Your task to perform on an android device: toggle notification dots Image 0: 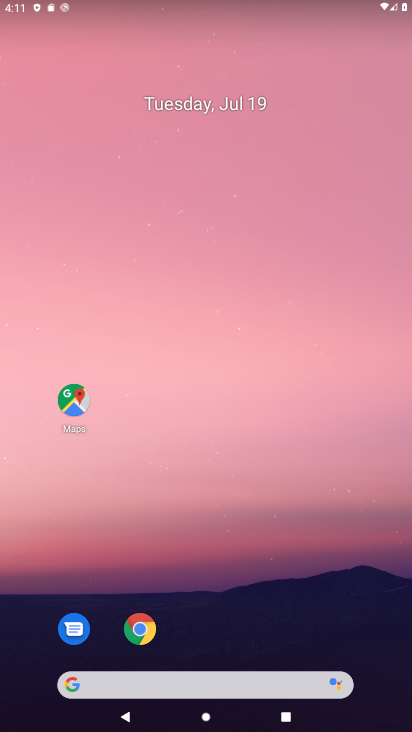
Step 0: drag from (199, 607) to (188, 286)
Your task to perform on an android device: toggle notification dots Image 1: 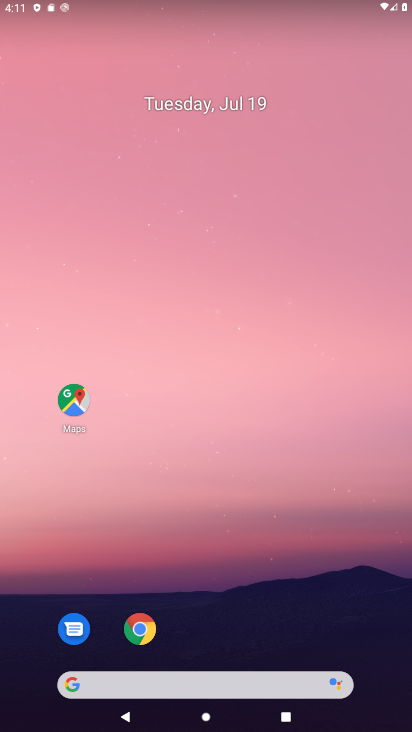
Step 1: drag from (289, 501) to (289, 122)
Your task to perform on an android device: toggle notification dots Image 2: 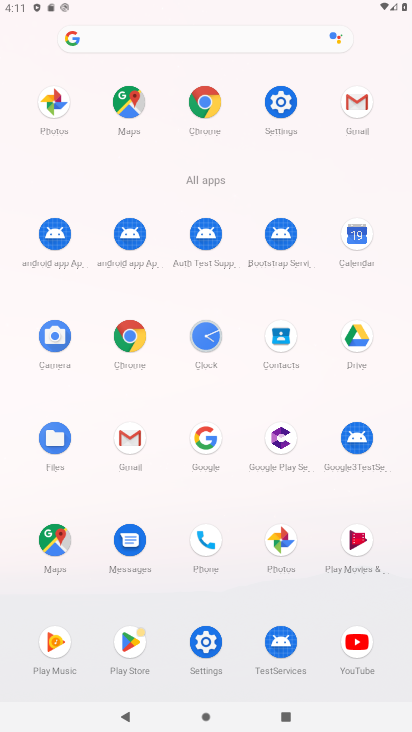
Step 2: click (287, 108)
Your task to perform on an android device: toggle notification dots Image 3: 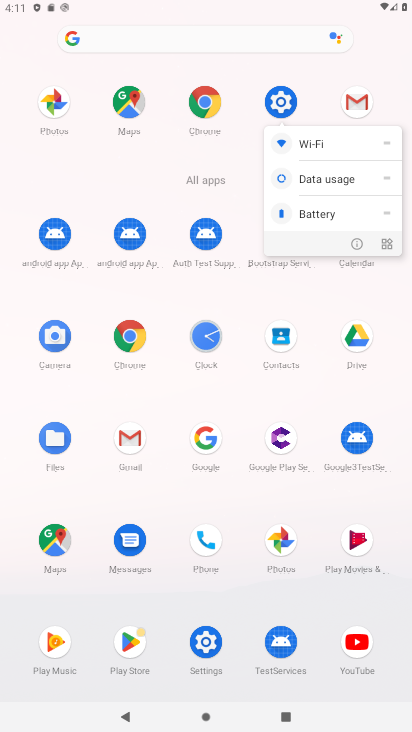
Step 3: click (294, 102)
Your task to perform on an android device: toggle notification dots Image 4: 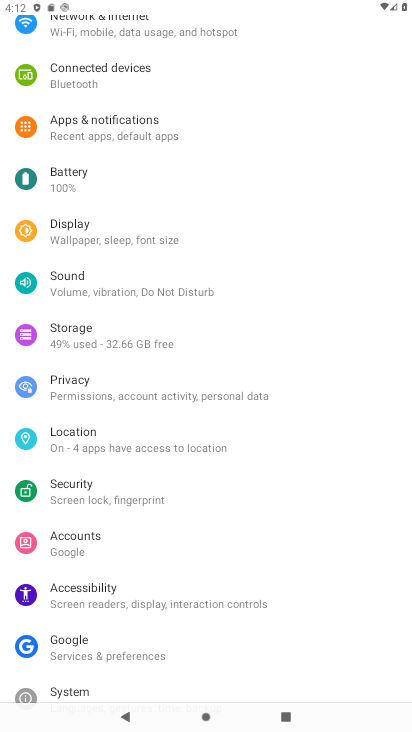
Step 4: drag from (77, 653) to (127, 199)
Your task to perform on an android device: toggle notification dots Image 5: 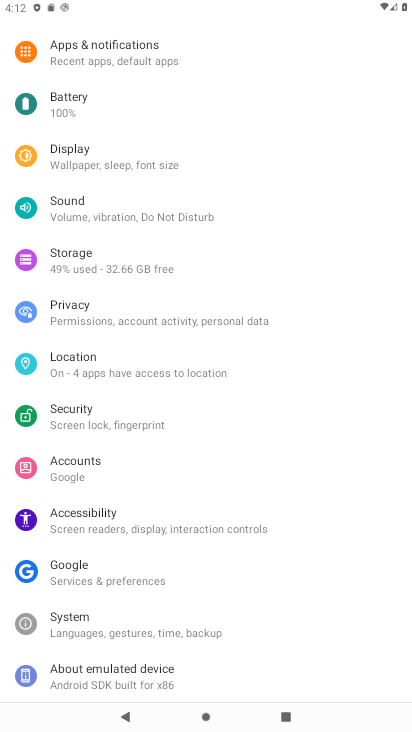
Step 5: click (120, 48)
Your task to perform on an android device: toggle notification dots Image 6: 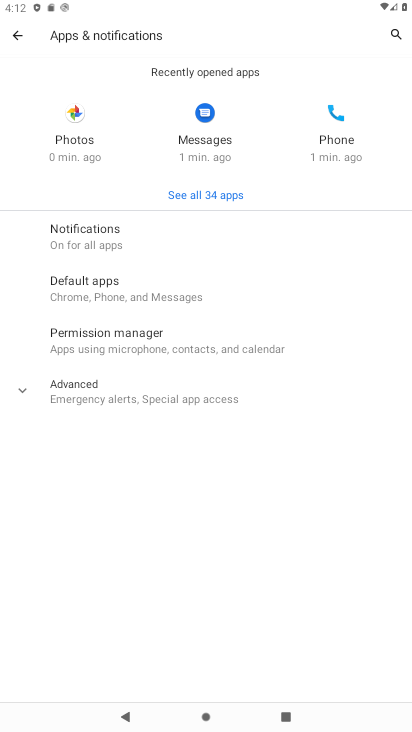
Step 6: click (103, 242)
Your task to perform on an android device: toggle notification dots Image 7: 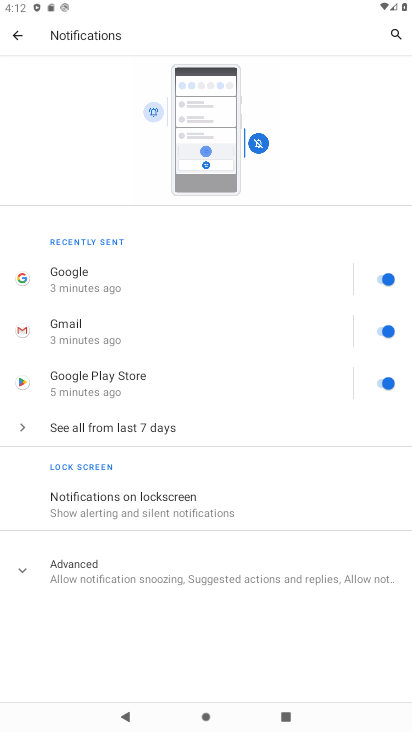
Step 7: click (126, 563)
Your task to perform on an android device: toggle notification dots Image 8: 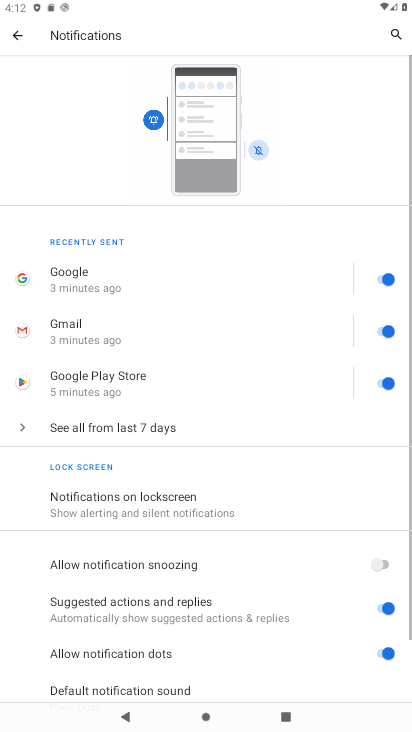
Step 8: drag from (199, 633) to (195, 320)
Your task to perform on an android device: toggle notification dots Image 9: 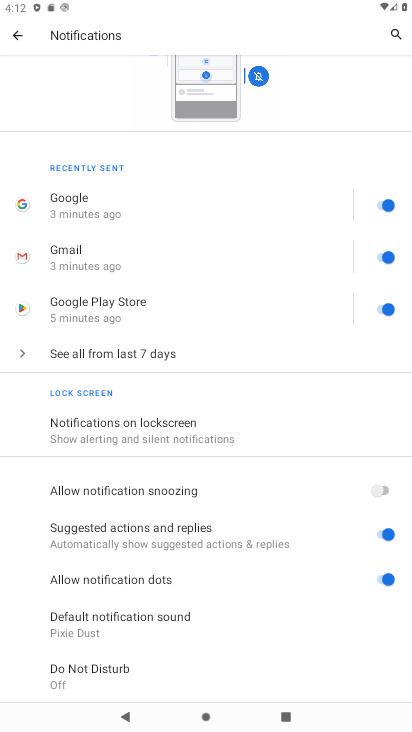
Step 9: click (379, 576)
Your task to perform on an android device: toggle notification dots Image 10: 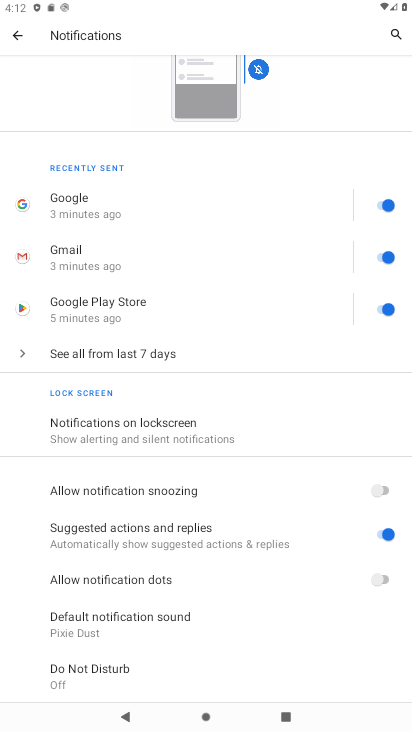
Step 10: task complete